Your task to perform on an android device: Open location settings Image 0: 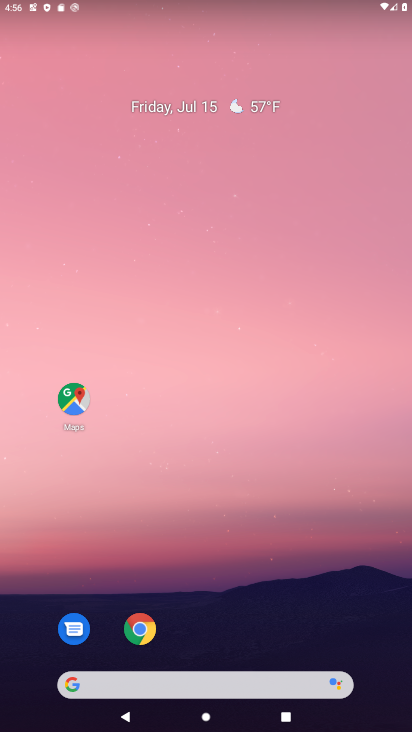
Step 0: press home button
Your task to perform on an android device: Open location settings Image 1: 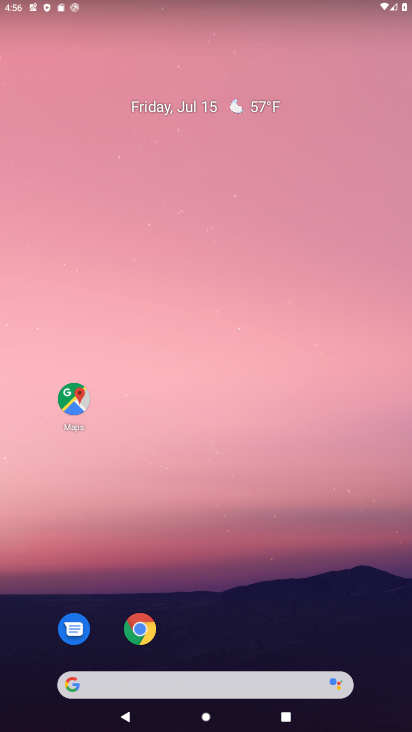
Step 1: drag from (217, 553) to (205, 99)
Your task to perform on an android device: Open location settings Image 2: 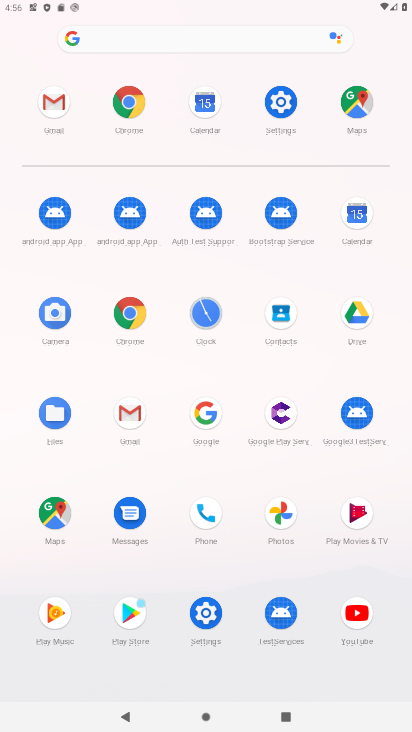
Step 2: click (277, 106)
Your task to perform on an android device: Open location settings Image 3: 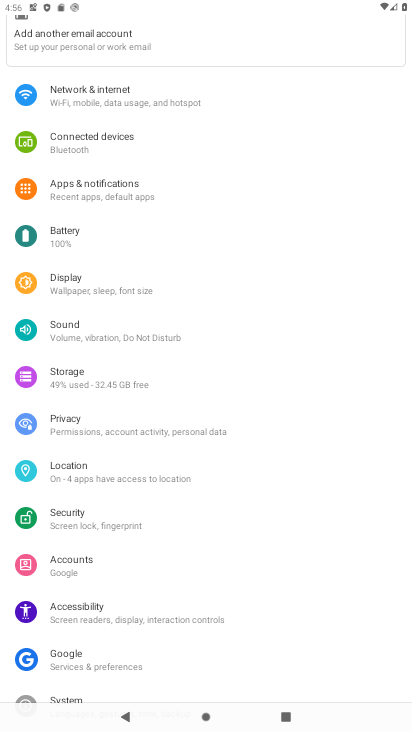
Step 3: click (83, 470)
Your task to perform on an android device: Open location settings Image 4: 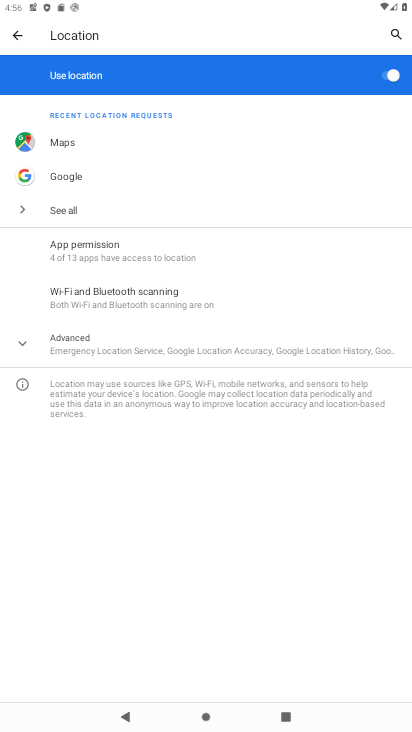
Step 4: task complete